Your task to perform on an android device: toggle priority inbox in the gmail app Image 0: 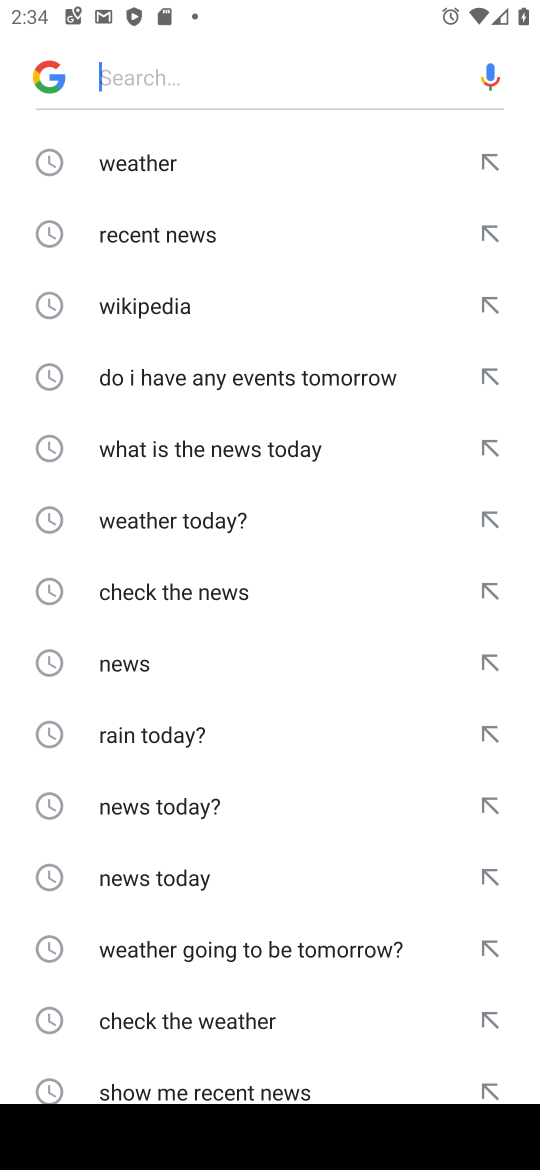
Step 0: press back button
Your task to perform on an android device: toggle priority inbox in the gmail app Image 1: 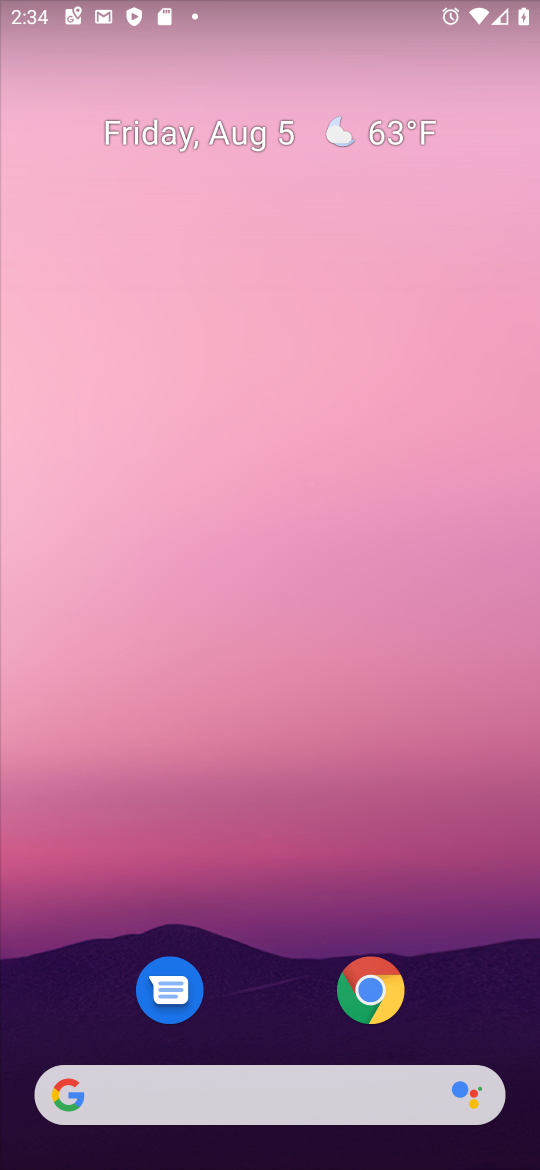
Step 1: drag from (281, 1083) to (273, 253)
Your task to perform on an android device: toggle priority inbox in the gmail app Image 2: 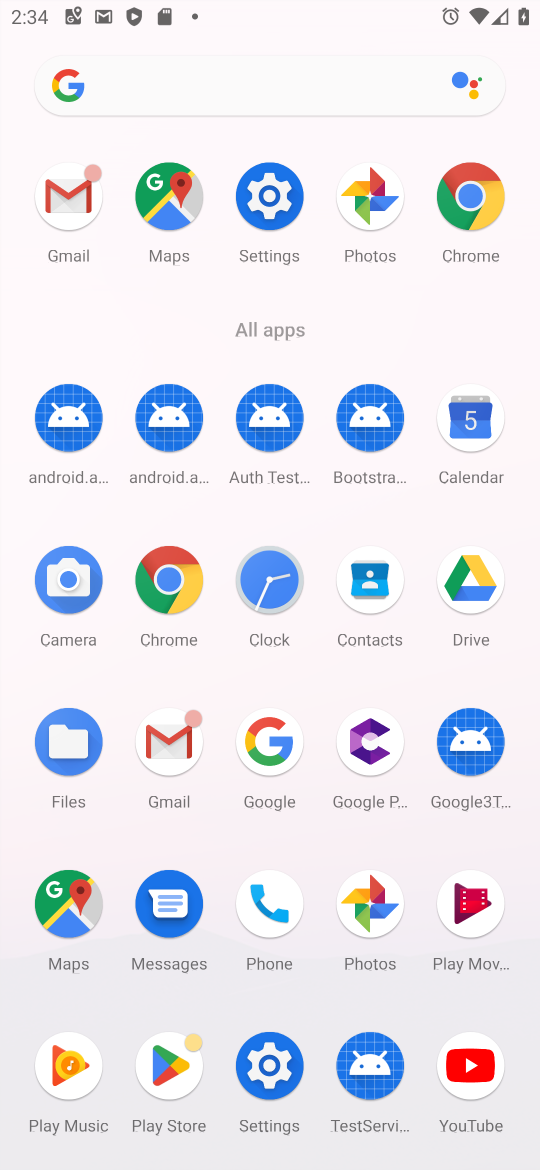
Step 2: click (163, 740)
Your task to perform on an android device: toggle priority inbox in the gmail app Image 3: 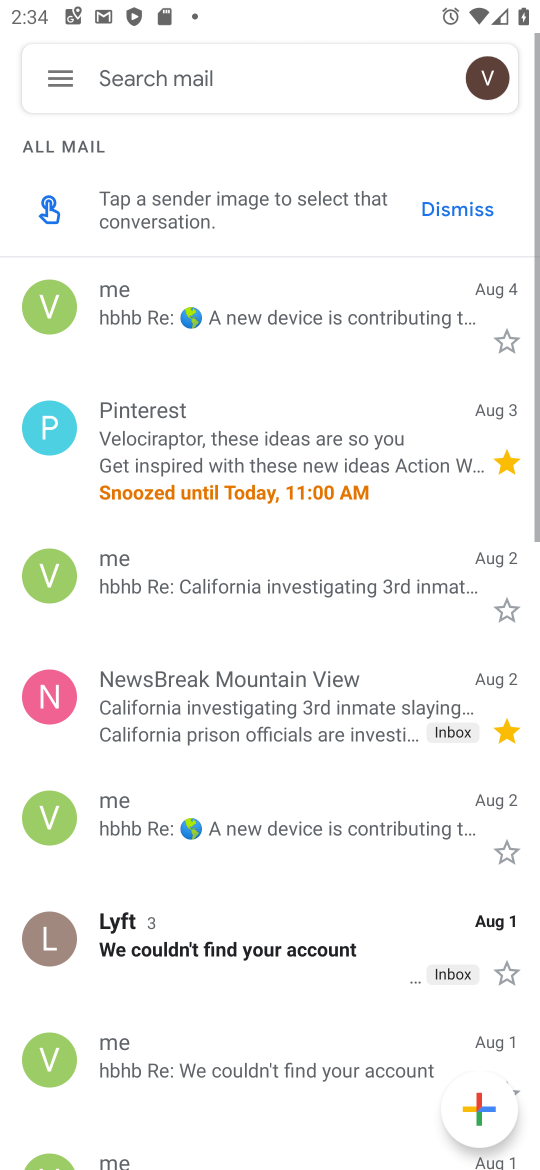
Step 3: click (42, 109)
Your task to perform on an android device: toggle priority inbox in the gmail app Image 4: 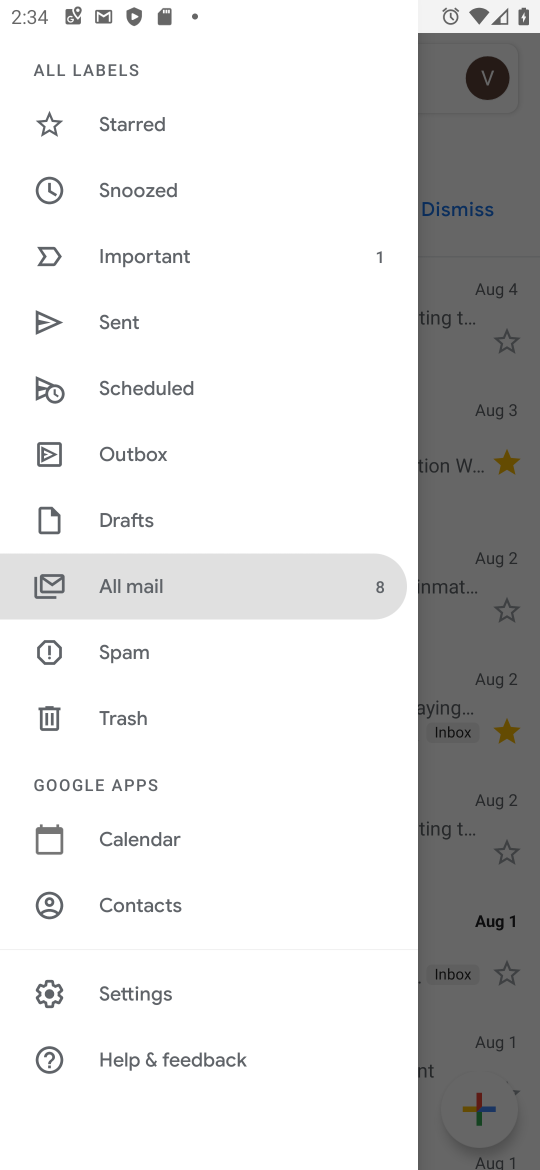
Step 4: click (181, 994)
Your task to perform on an android device: toggle priority inbox in the gmail app Image 5: 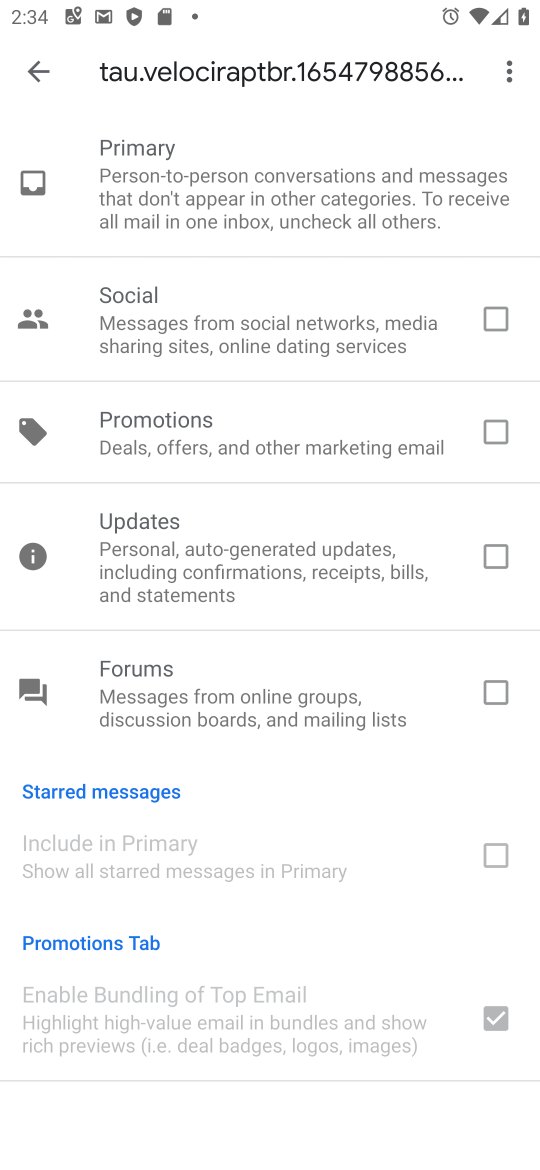
Step 5: click (38, 93)
Your task to perform on an android device: toggle priority inbox in the gmail app Image 6: 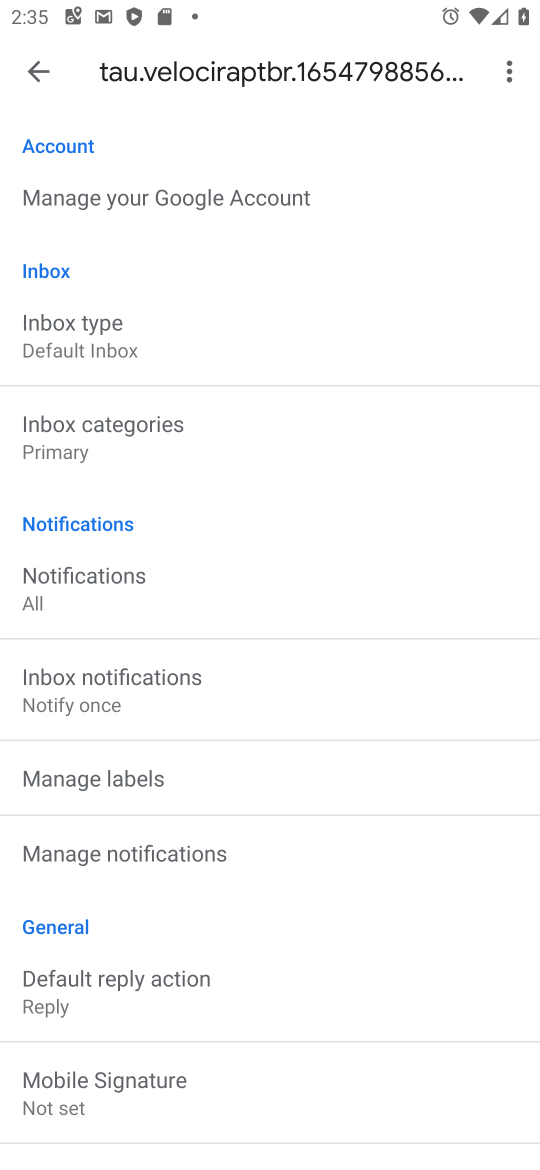
Step 6: click (183, 356)
Your task to perform on an android device: toggle priority inbox in the gmail app Image 7: 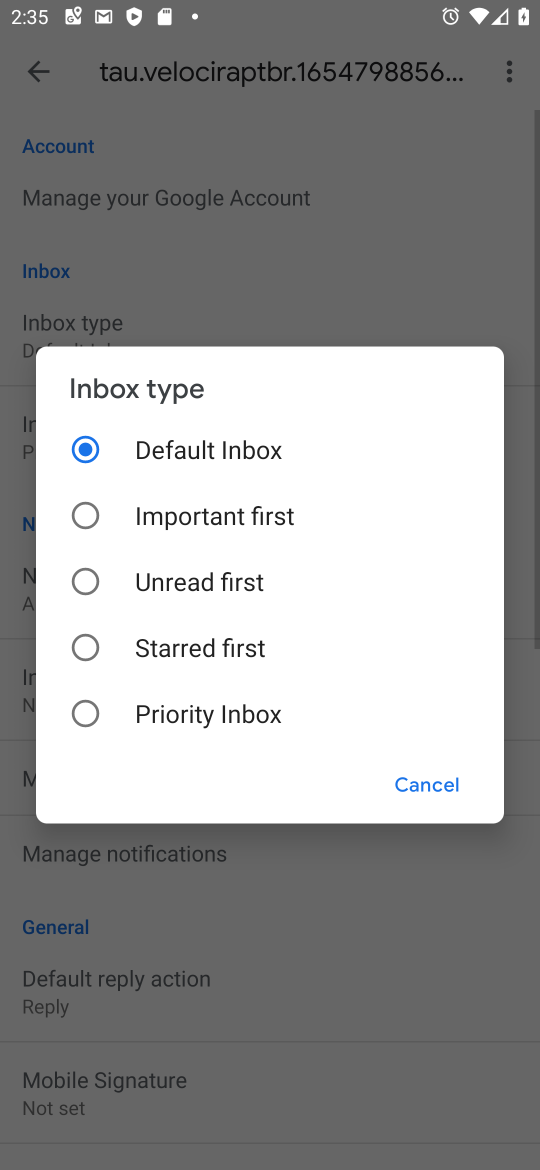
Step 7: click (171, 709)
Your task to perform on an android device: toggle priority inbox in the gmail app Image 8: 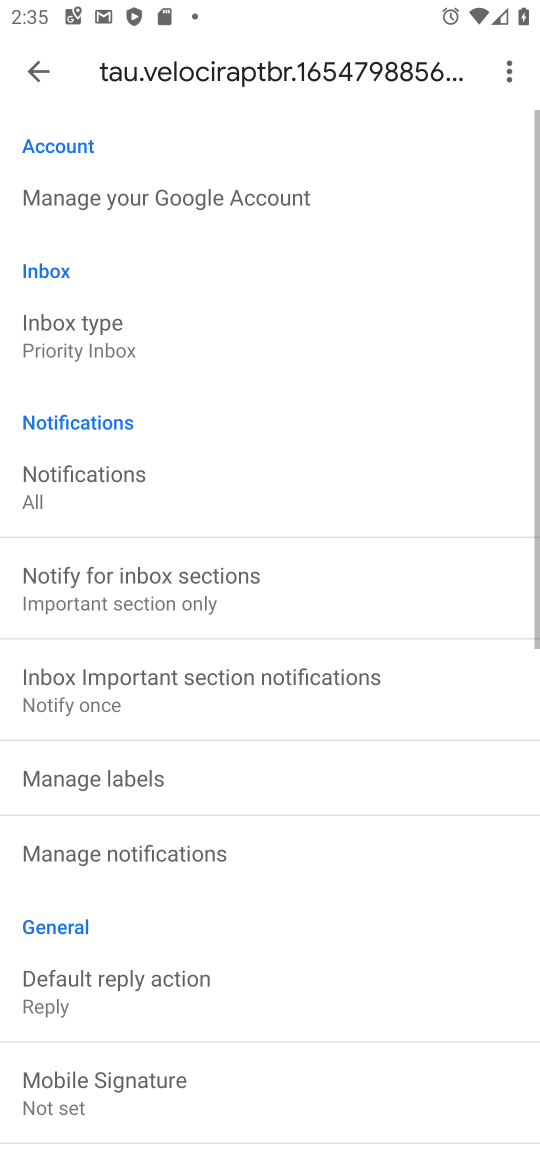
Step 8: task complete